Your task to perform on an android device: clear history in the chrome app Image 0: 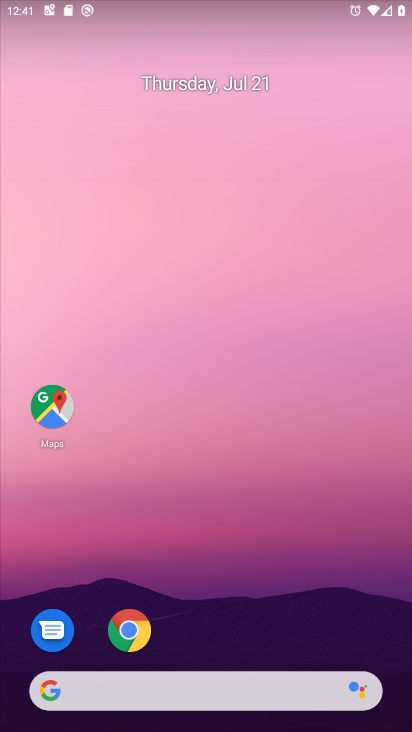
Step 0: drag from (193, 624) to (282, 130)
Your task to perform on an android device: clear history in the chrome app Image 1: 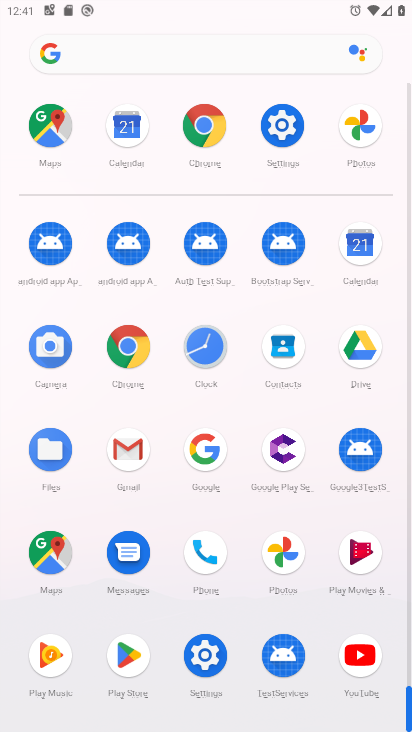
Step 1: click (125, 346)
Your task to perform on an android device: clear history in the chrome app Image 2: 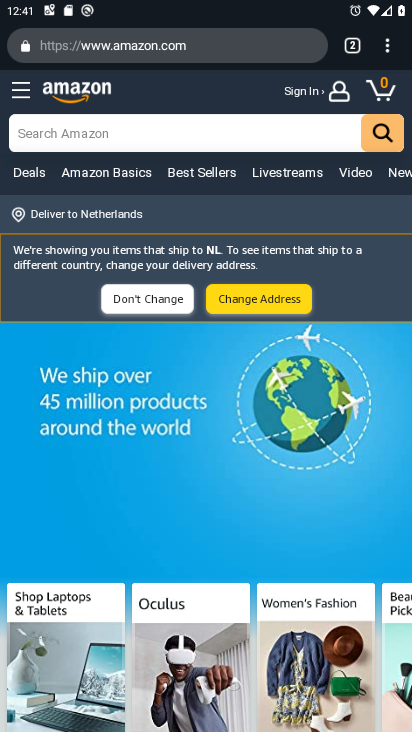
Step 2: drag from (382, 46) to (241, 254)
Your task to perform on an android device: clear history in the chrome app Image 3: 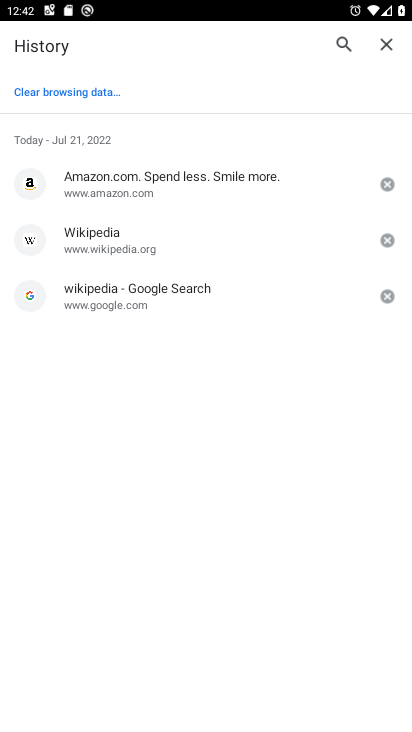
Step 3: click (52, 97)
Your task to perform on an android device: clear history in the chrome app Image 4: 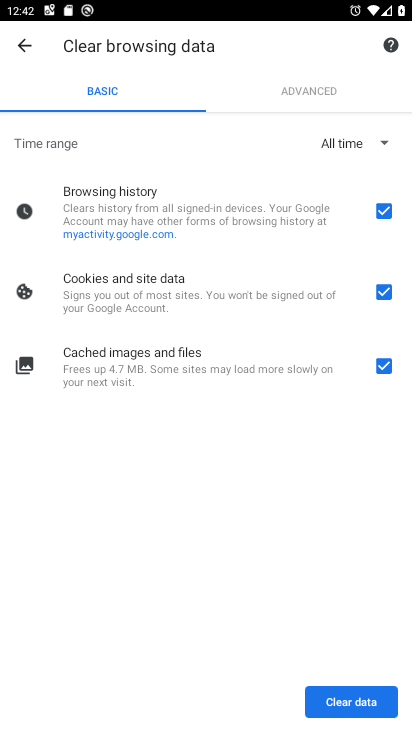
Step 4: click (351, 705)
Your task to perform on an android device: clear history in the chrome app Image 5: 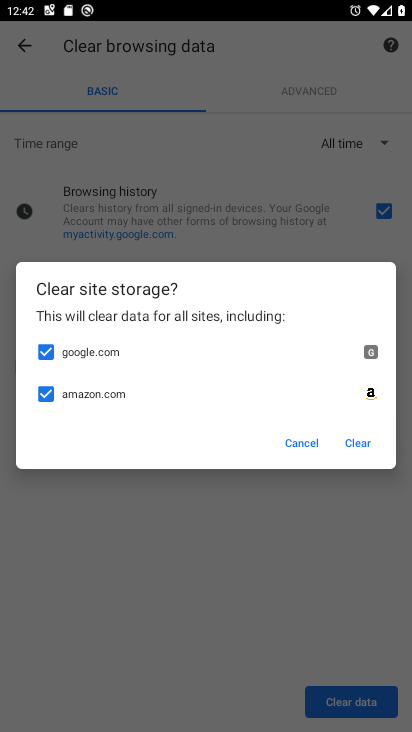
Step 5: click (357, 436)
Your task to perform on an android device: clear history in the chrome app Image 6: 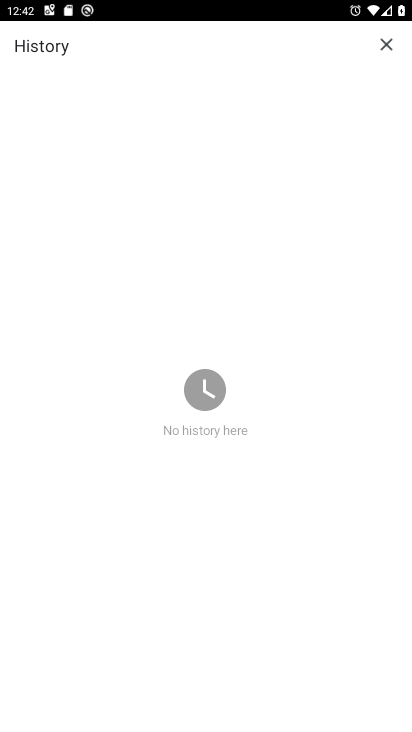
Step 6: task complete